Your task to perform on an android device: stop showing notifications on the lock screen Image 0: 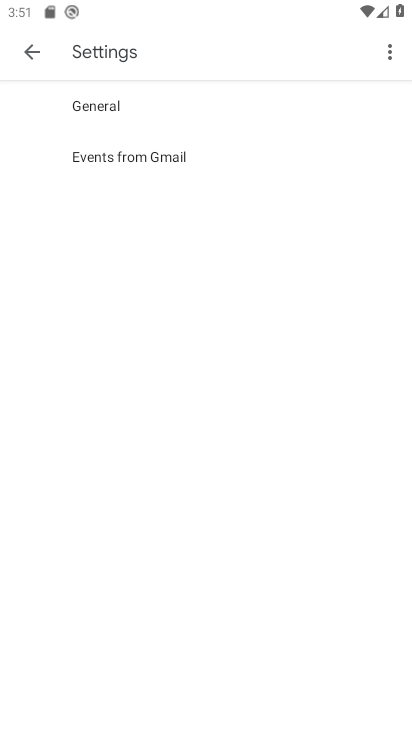
Step 0: press home button
Your task to perform on an android device: stop showing notifications on the lock screen Image 1: 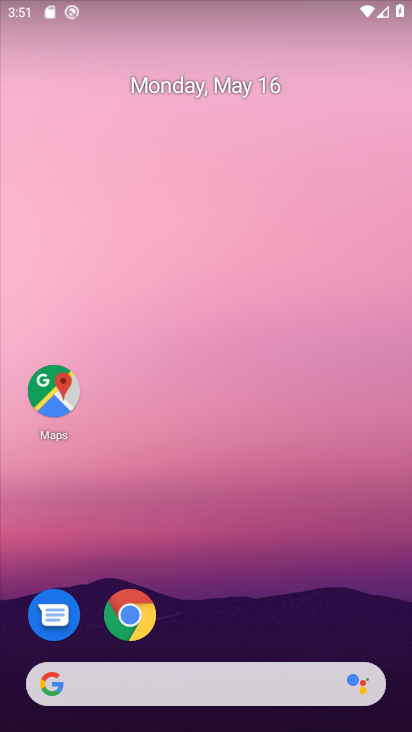
Step 1: drag from (241, 576) to (92, 53)
Your task to perform on an android device: stop showing notifications on the lock screen Image 2: 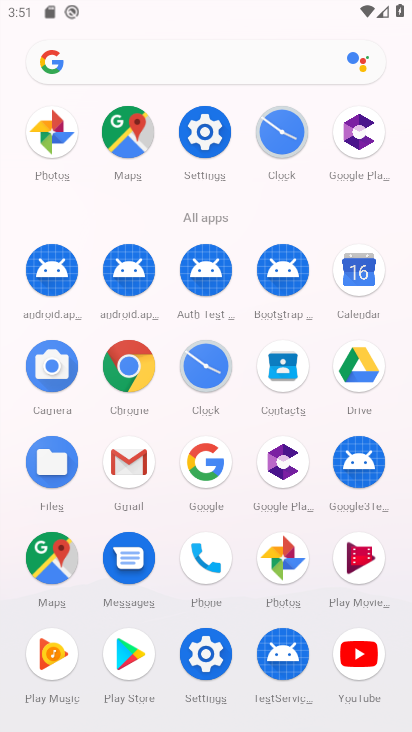
Step 2: click (219, 118)
Your task to perform on an android device: stop showing notifications on the lock screen Image 3: 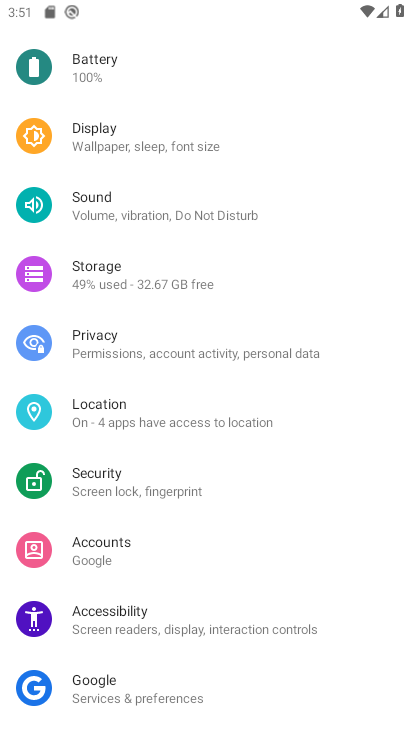
Step 3: drag from (156, 647) to (130, 319)
Your task to perform on an android device: stop showing notifications on the lock screen Image 4: 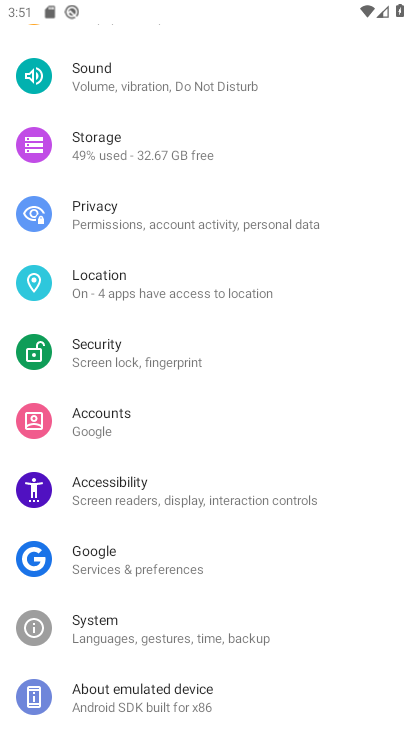
Step 4: drag from (124, 644) to (164, 468)
Your task to perform on an android device: stop showing notifications on the lock screen Image 5: 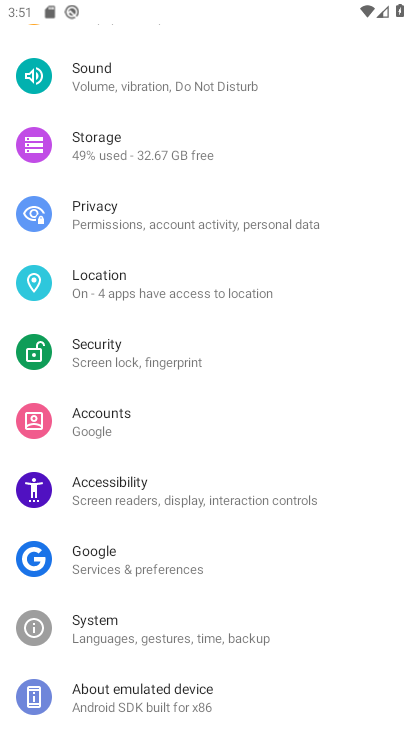
Step 5: drag from (129, 369) to (161, 709)
Your task to perform on an android device: stop showing notifications on the lock screen Image 6: 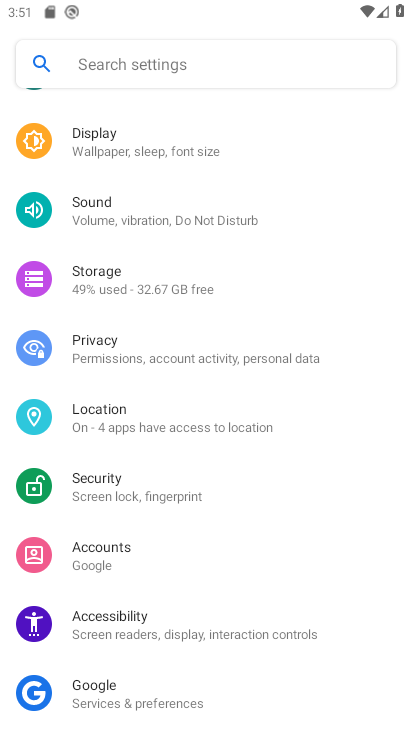
Step 6: drag from (135, 263) to (155, 724)
Your task to perform on an android device: stop showing notifications on the lock screen Image 7: 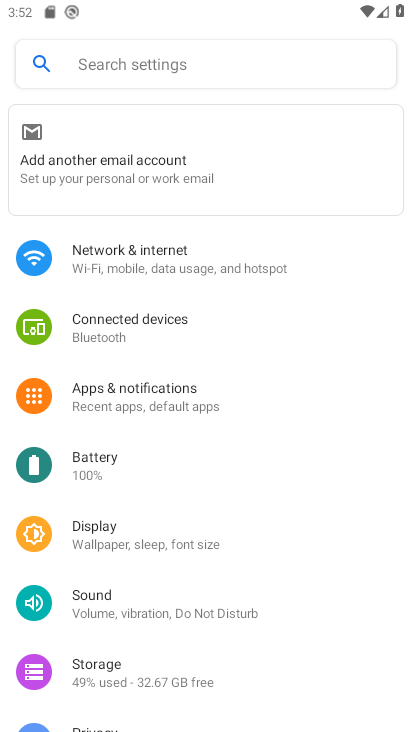
Step 7: click (117, 394)
Your task to perform on an android device: stop showing notifications on the lock screen Image 8: 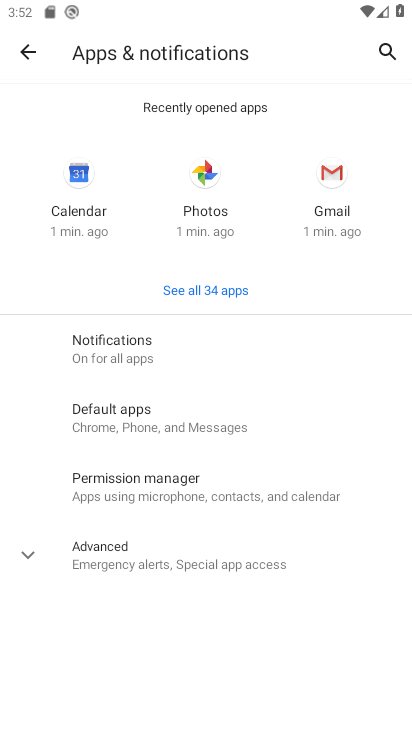
Step 8: click (96, 351)
Your task to perform on an android device: stop showing notifications on the lock screen Image 9: 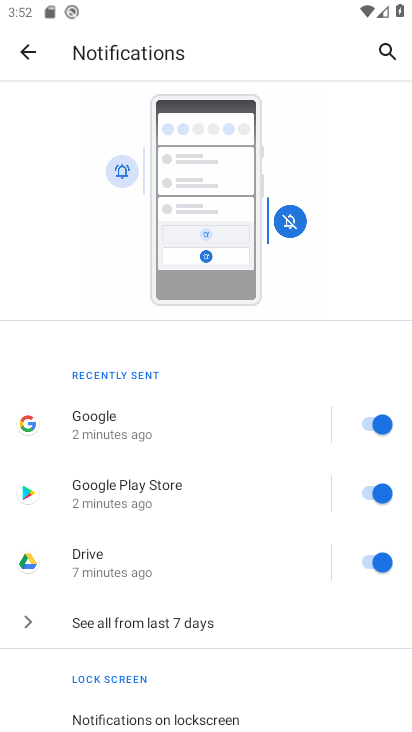
Step 9: click (134, 719)
Your task to perform on an android device: stop showing notifications on the lock screen Image 10: 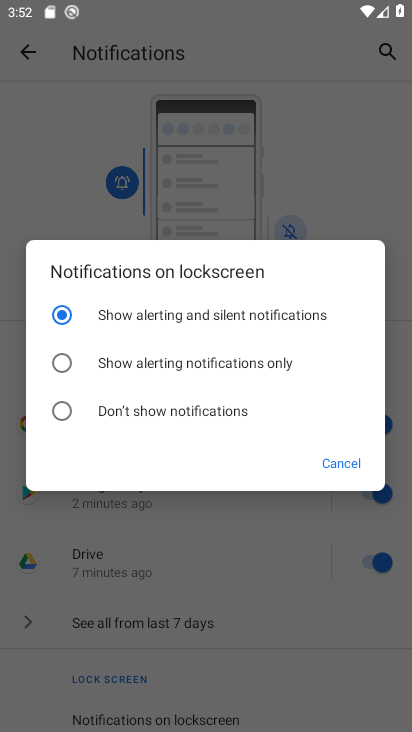
Step 10: click (60, 414)
Your task to perform on an android device: stop showing notifications on the lock screen Image 11: 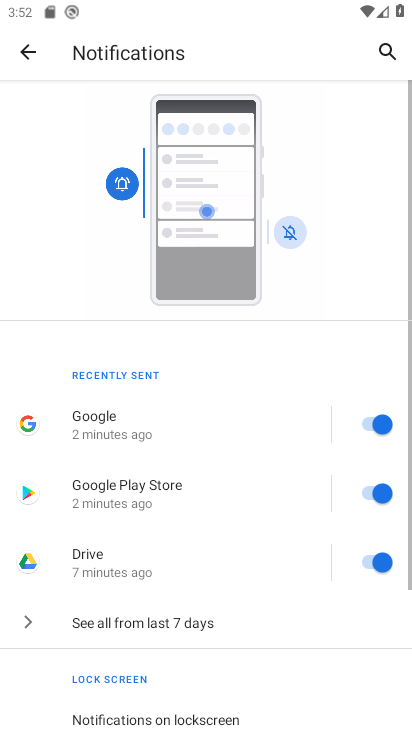
Step 11: task complete